Your task to perform on an android device: Show the shopping cart on amazon.com. Search for alienware aurora on amazon.com, select the first entry, and add it to the cart. Image 0: 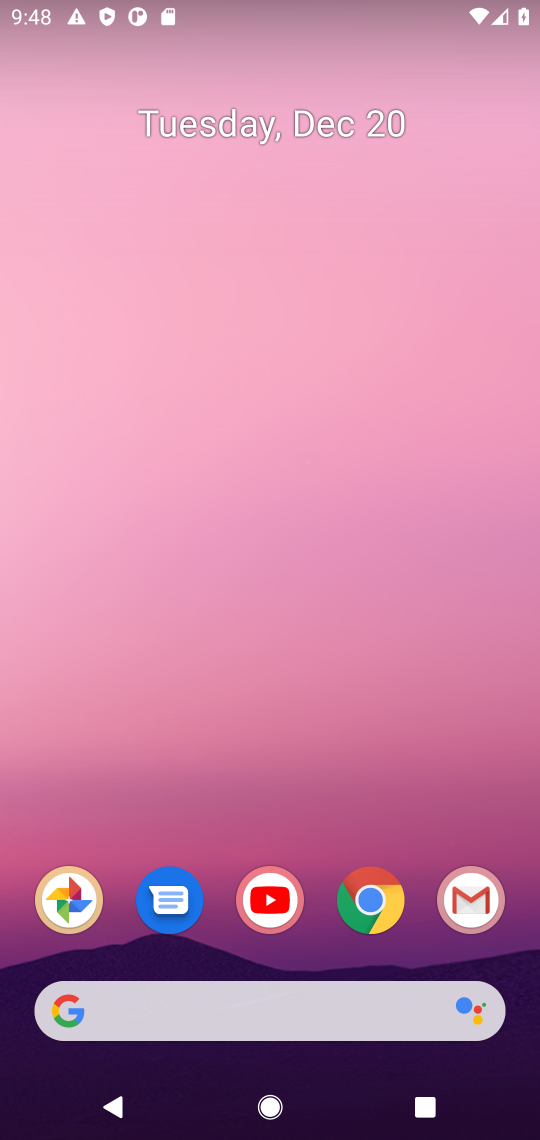
Step 0: click (368, 906)
Your task to perform on an android device: Show the shopping cart on amazon.com. Search for alienware aurora on amazon.com, select the first entry, and add it to the cart. Image 1: 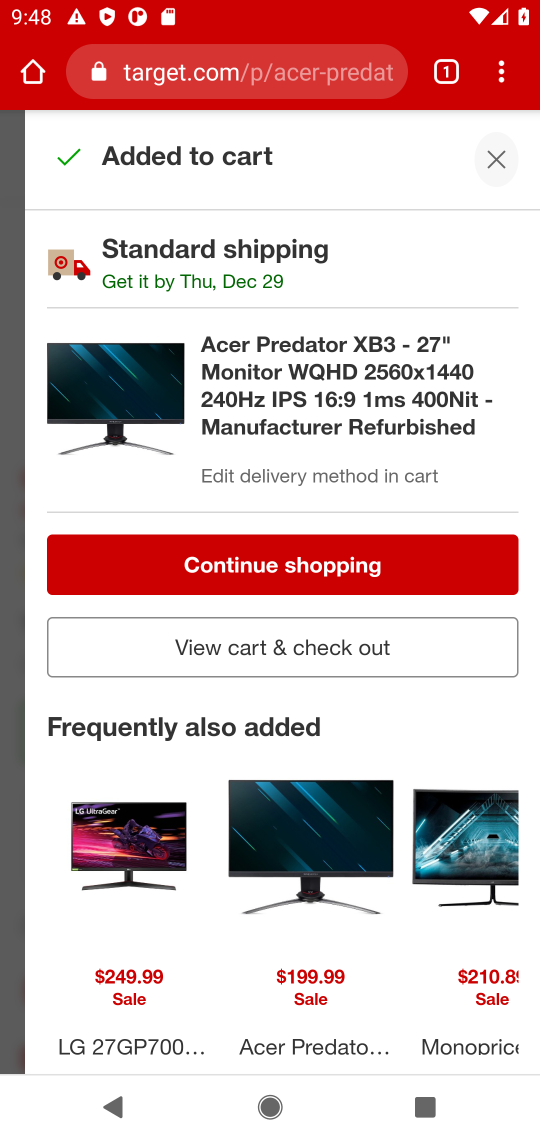
Step 1: click (223, 85)
Your task to perform on an android device: Show the shopping cart on amazon.com. Search for alienware aurora on amazon.com, select the first entry, and add it to the cart. Image 2: 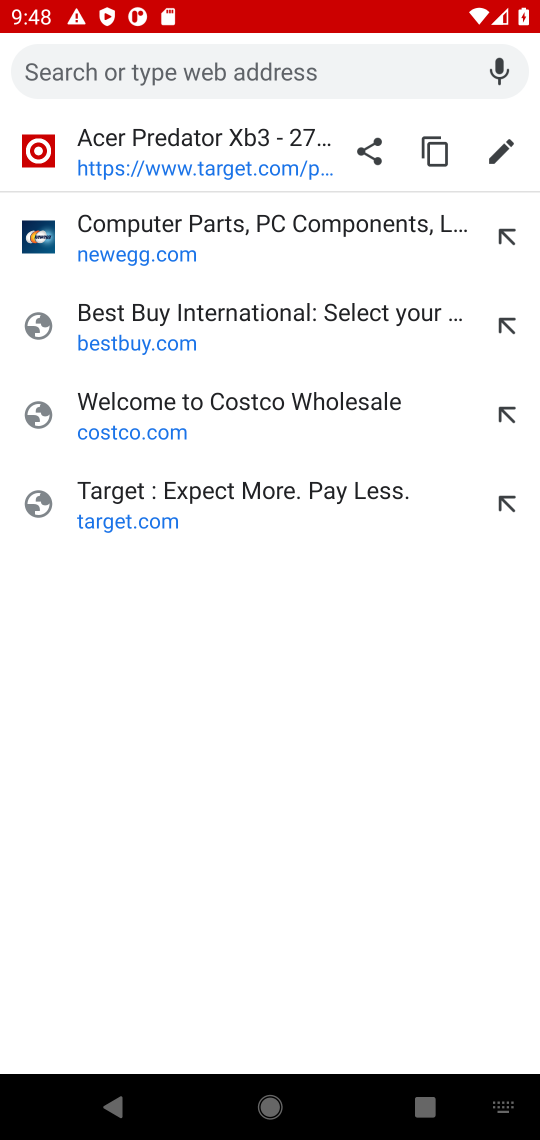
Step 2: type "amazon.com"
Your task to perform on an android device: Show the shopping cart on amazon.com. Search for alienware aurora on amazon.com, select the first entry, and add it to the cart. Image 3: 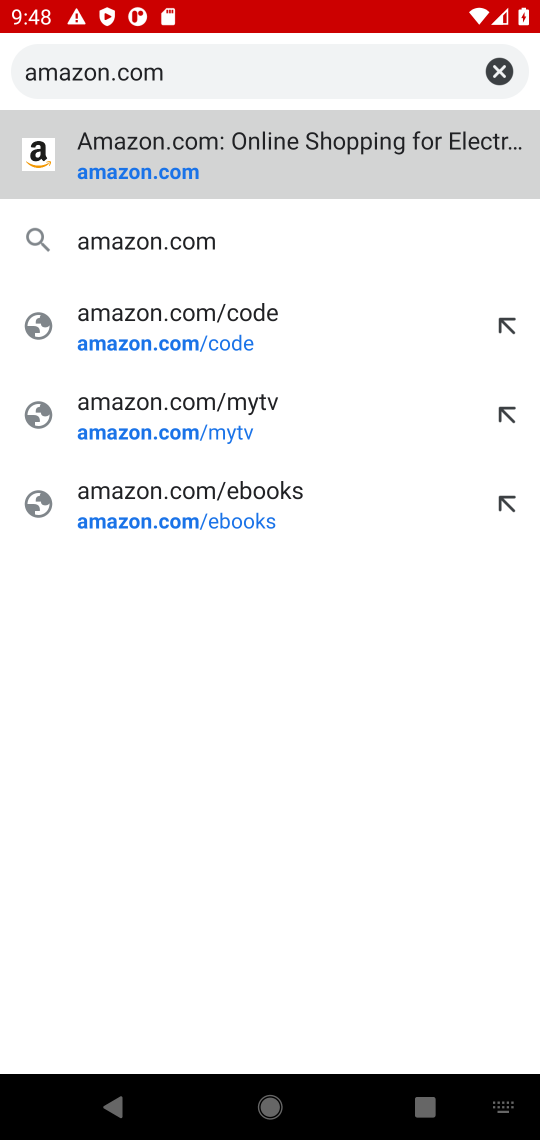
Step 3: click (165, 162)
Your task to perform on an android device: Show the shopping cart on amazon.com. Search for alienware aurora on amazon.com, select the first entry, and add it to the cart. Image 4: 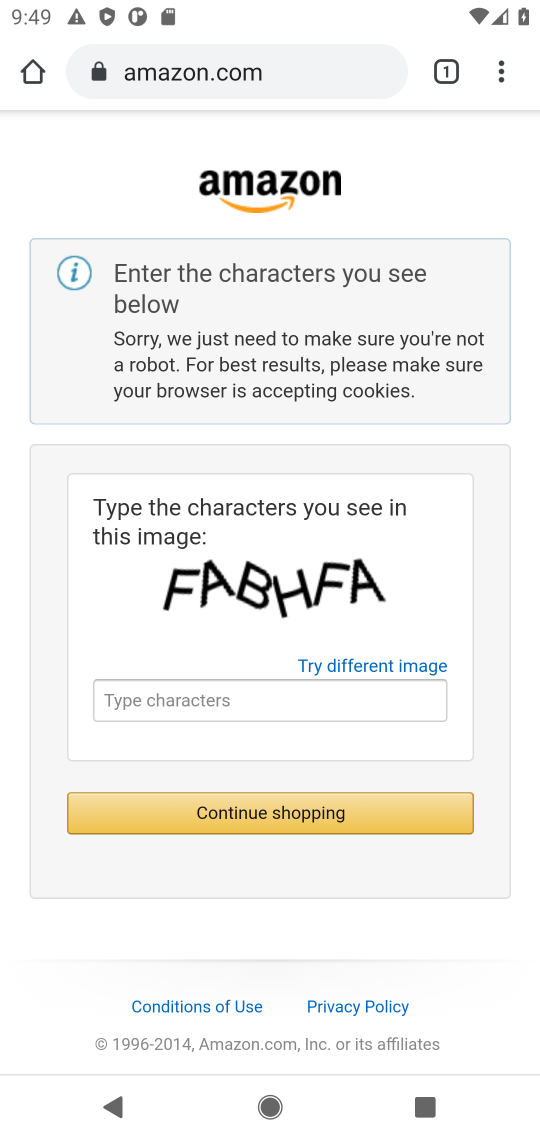
Step 4: click (228, 687)
Your task to perform on an android device: Show the shopping cart on amazon.com. Search for alienware aurora on amazon.com, select the first entry, and add it to the cart. Image 5: 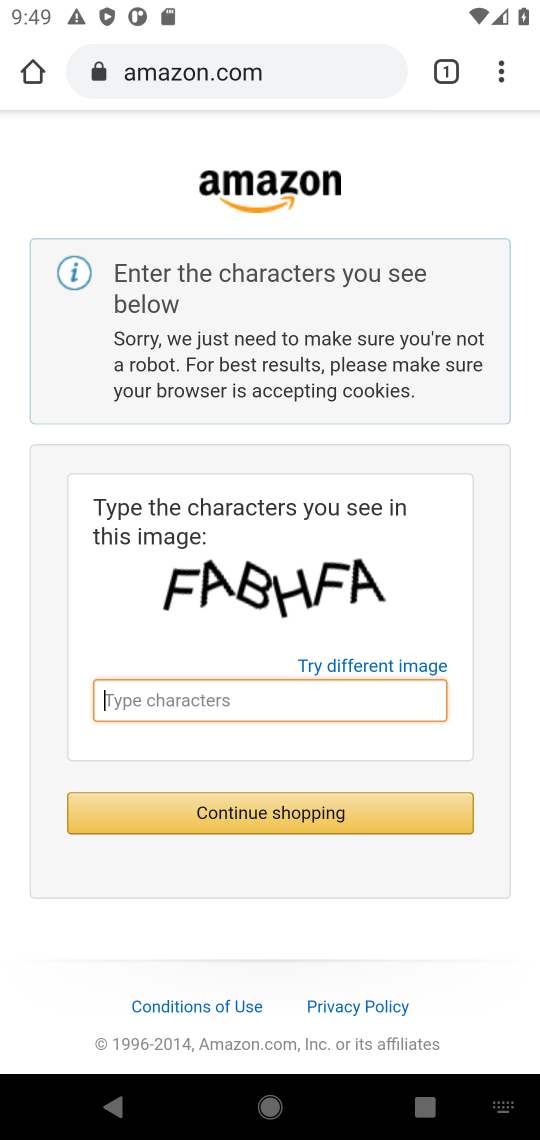
Step 5: type "FABHFA"
Your task to perform on an android device: Show the shopping cart on amazon.com. Search for alienware aurora on amazon.com, select the first entry, and add it to the cart. Image 6: 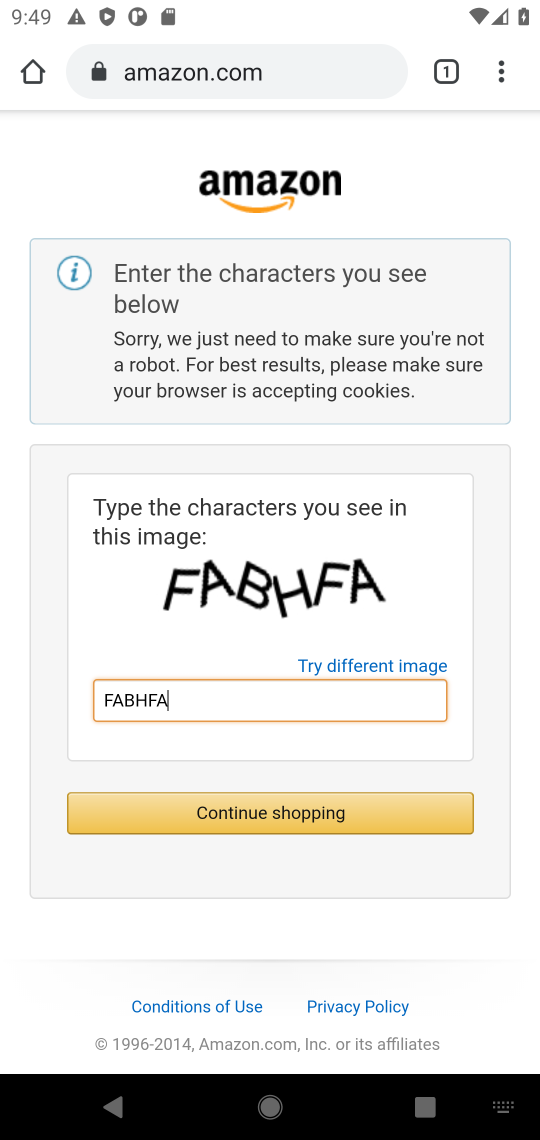
Step 6: click (290, 818)
Your task to perform on an android device: Show the shopping cart on amazon.com. Search for alienware aurora on amazon.com, select the first entry, and add it to the cart. Image 7: 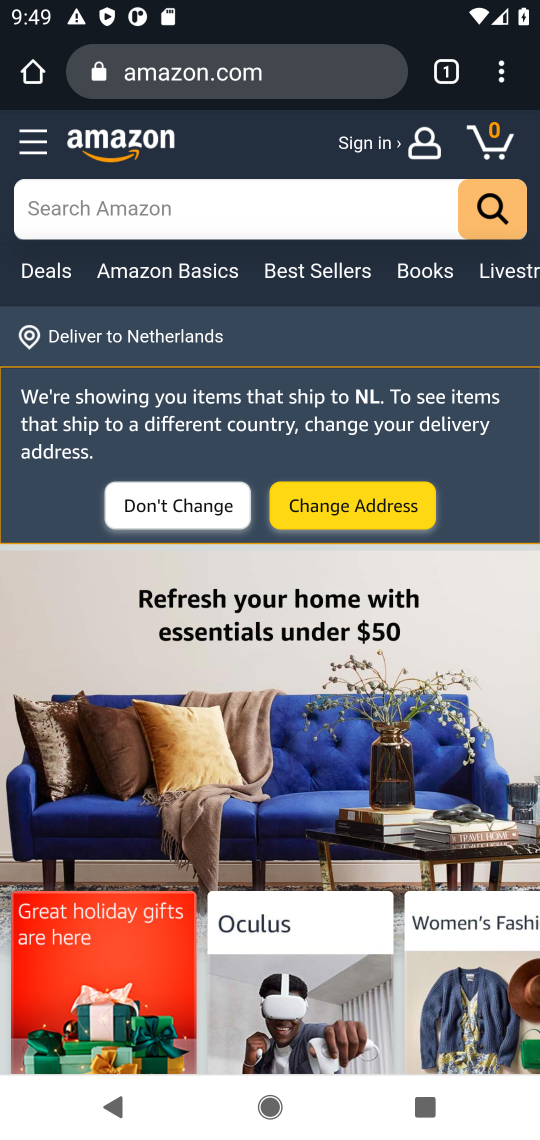
Step 7: click (493, 125)
Your task to perform on an android device: Show the shopping cart on amazon.com. Search for alienware aurora on amazon.com, select the first entry, and add it to the cart. Image 8: 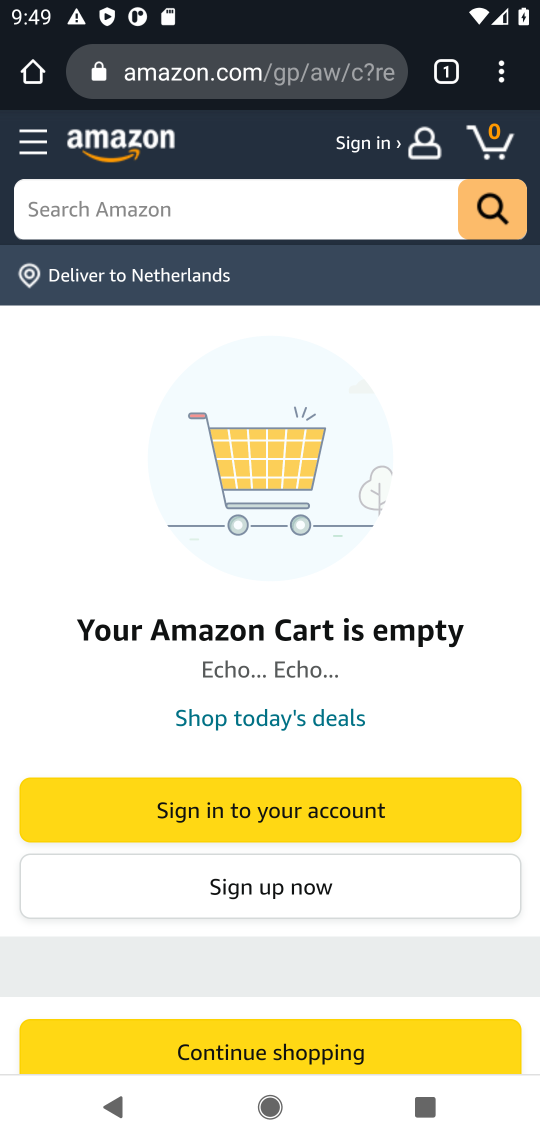
Step 8: click (57, 214)
Your task to perform on an android device: Show the shopping cart on amazon.com. Search for alienware aurora on amazon.com, select the first entry, and add it to the cart. Image 9: 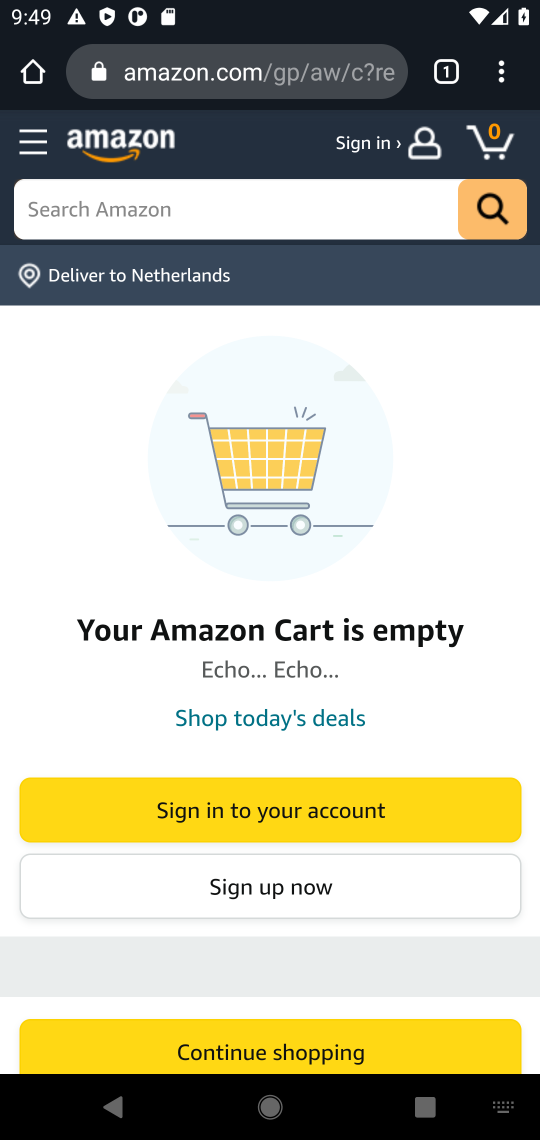
Step 9: type "alienware aurora"
Your task to perform on an android device: Show the shopping cart on amazon.com. Search for alienware aurora on amazon.com, select the first entry, and add it to the cart. Image 10: 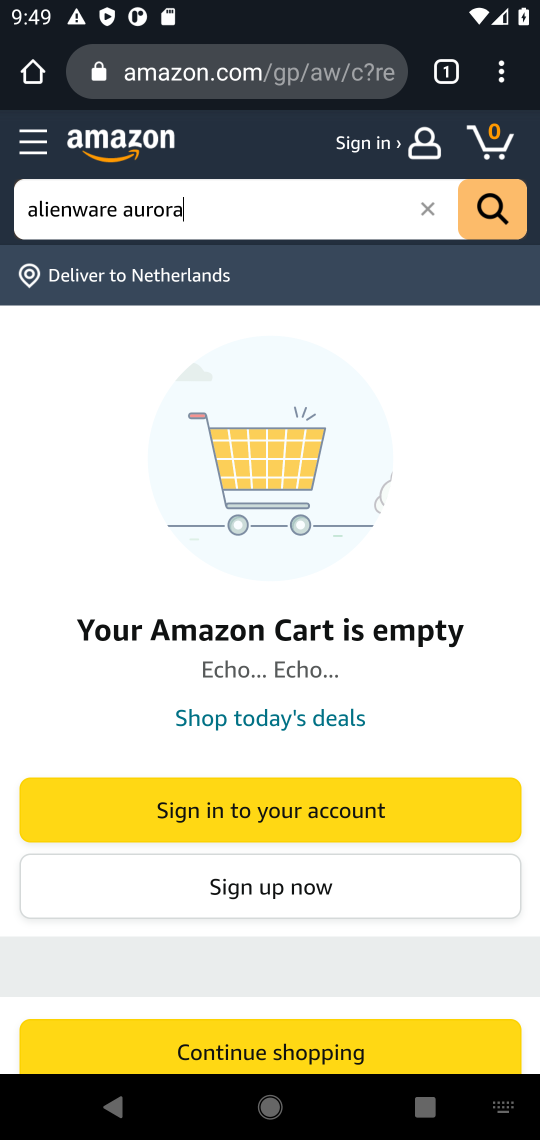
Step 10: click (496, 211)
Your task to perform on an android device: Show the shopping cart on amazon.com. Search for alienware aurora on amazon.com, select the first entry, and add it to the cart. Image 11: 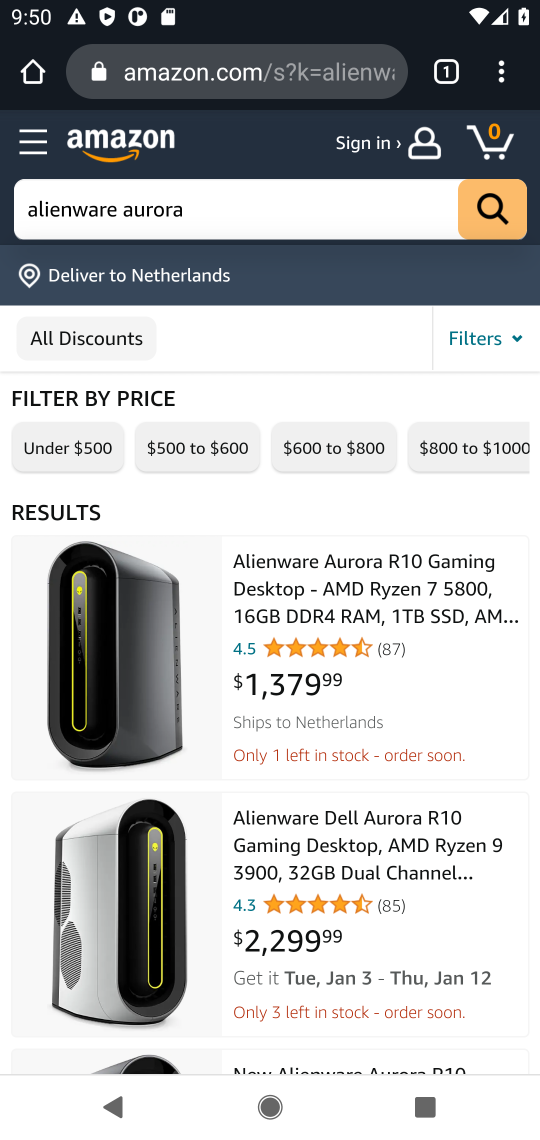
Step 11: click (280, 599)
Your task to perform on an android device: Show the shopping cart on amazon.com. Search for alienware aurora on amazon.com, select the first entry, and add it to the cart. Image 12: 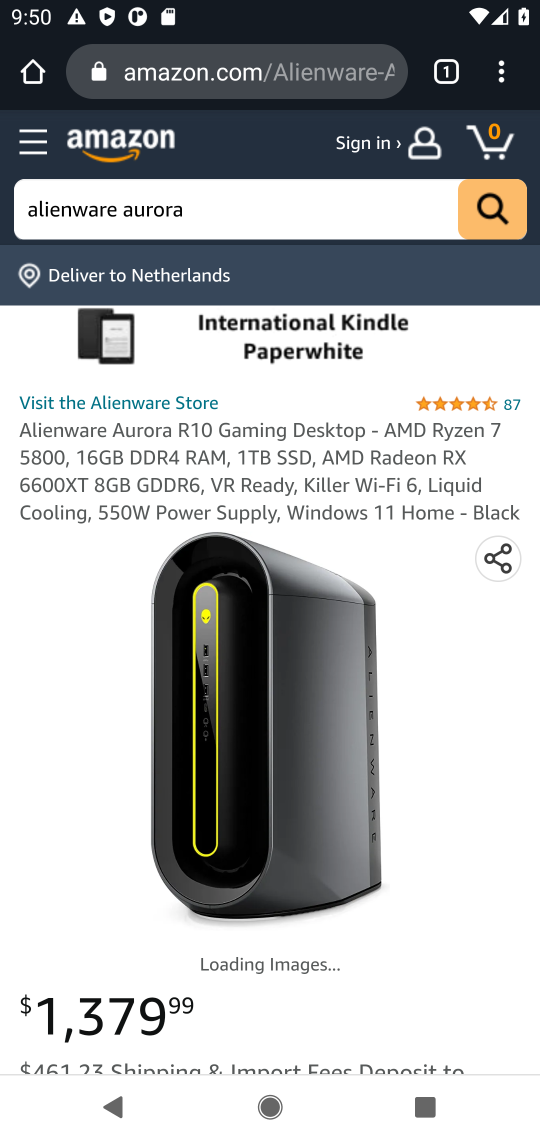
Step 12: drag from (254, 761) to (252, 250)
Your task to perform on an android device: Show the shopping cart on amazon.com. Search for alienware aurora on amazon.com, select the first entry, and add it to the cart. Image 13: 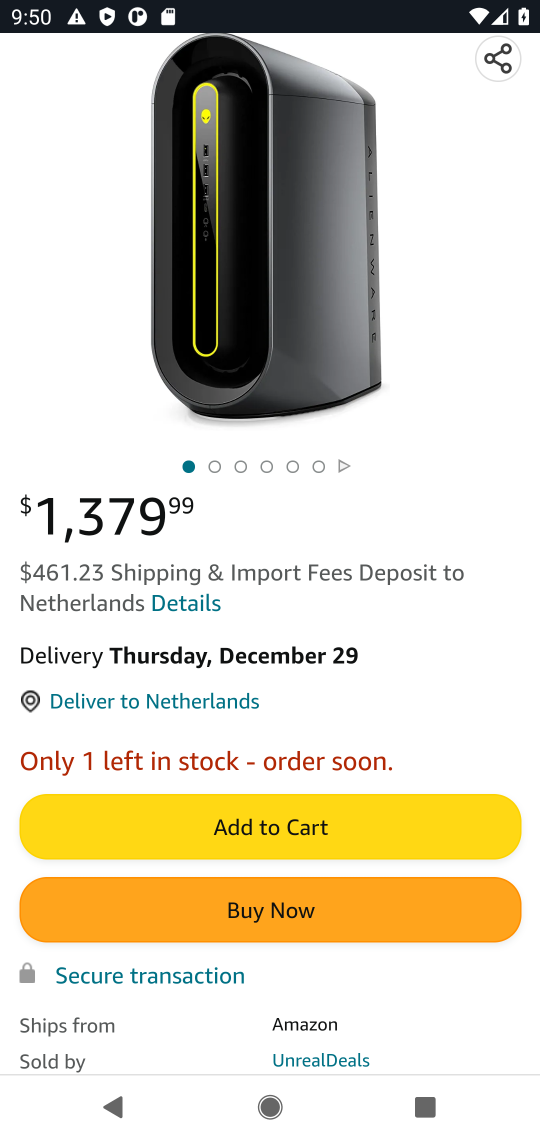
Step 13: click (249, 823)
Your task to perform on an android device: Show the shopping cart on amazon.com. Search for alienware aurora on amazon.com, select the first entry, and add it to the cart. Image 14: 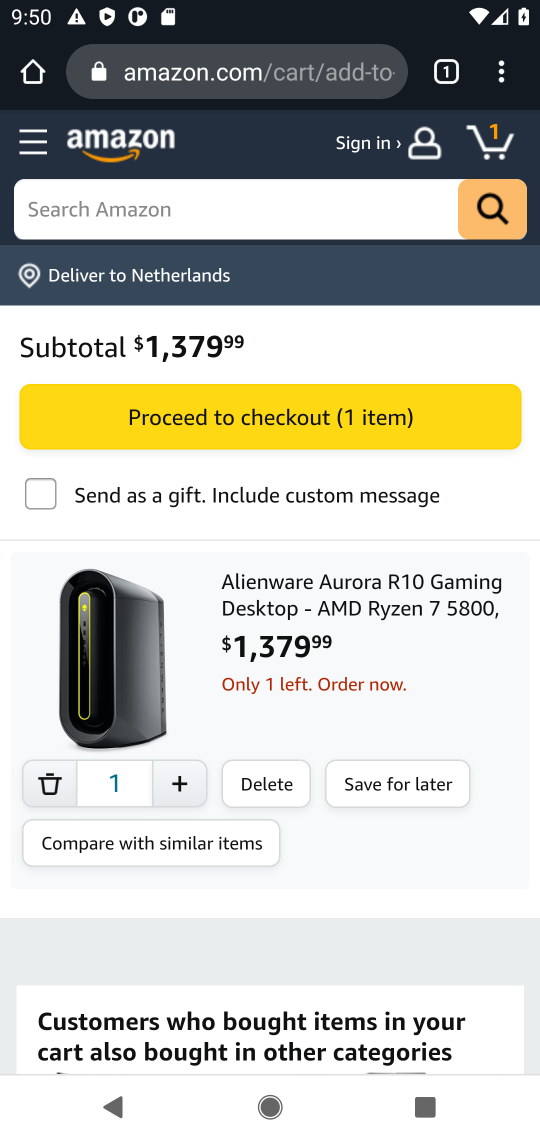
Step 14: task complete